Your task to perform on an android device: see sites visited before in the chrome app Image 0: 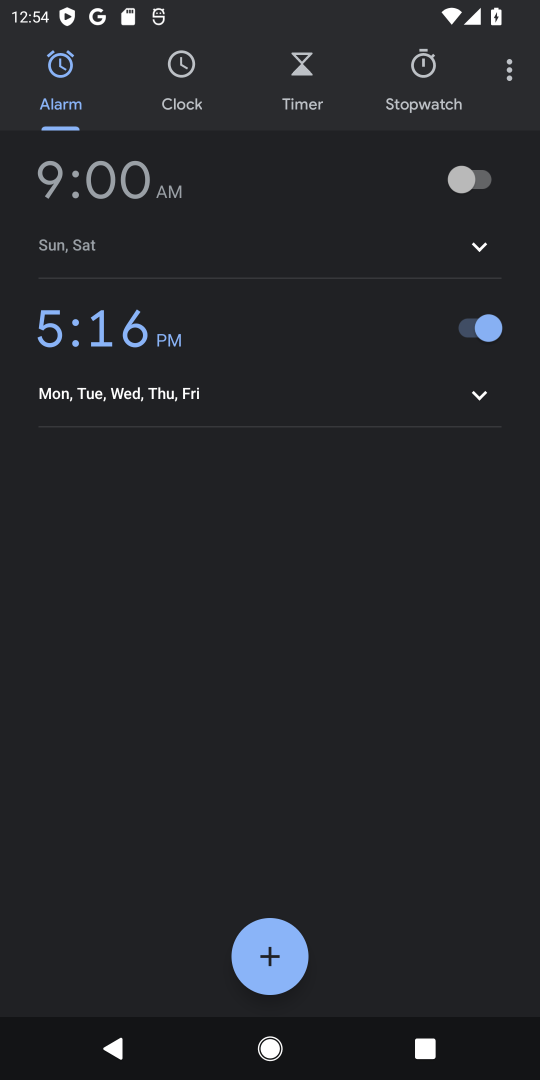
Step 0: press home button
Your task to perform on an android device: see sites visited before in the chrome app Image 1: 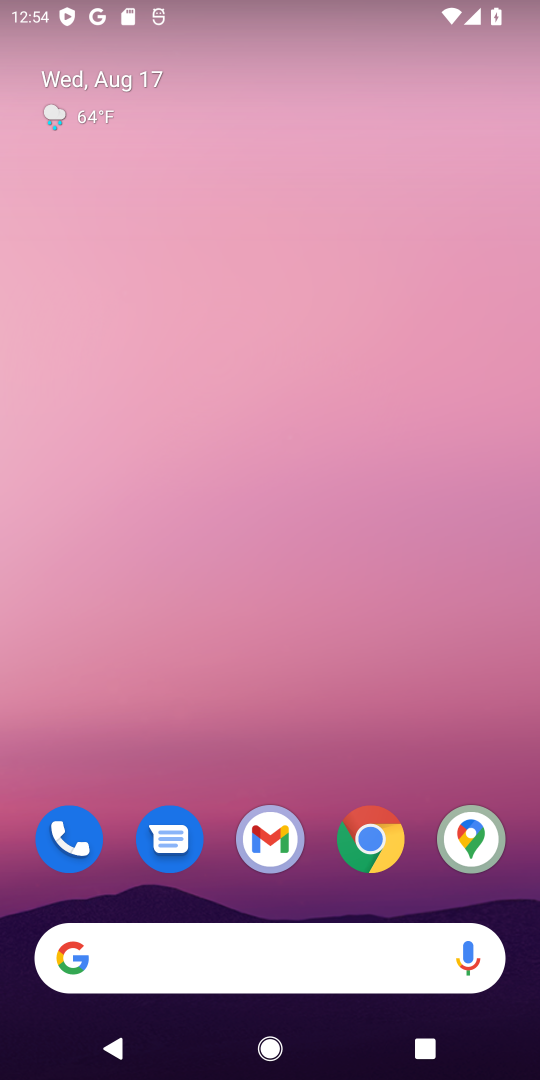
Step 1: click (367, 840)
Your task to perform on an android device: see sites visited before in the chrome app Image 2: 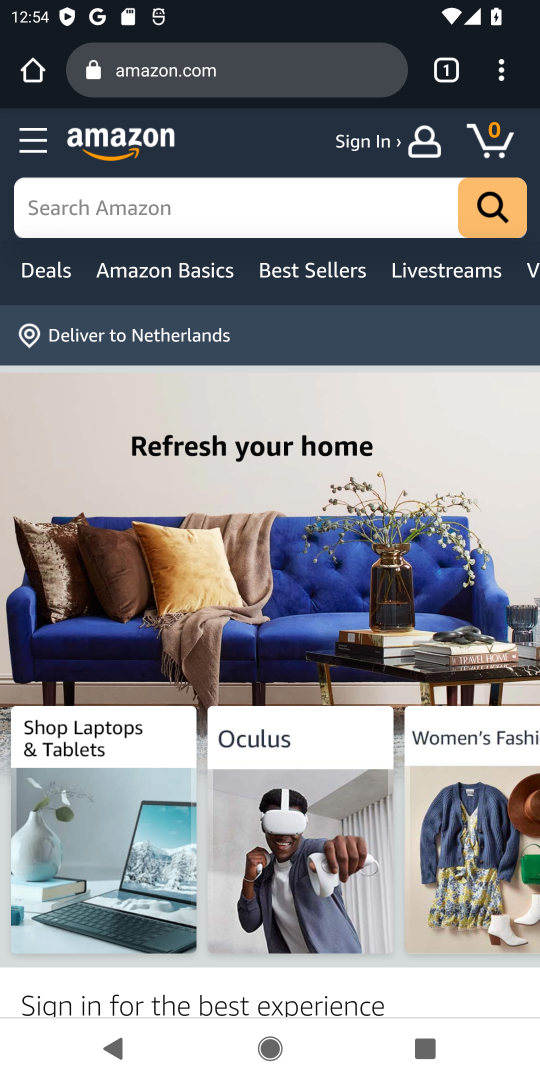
Step 2: task complete